Your task to perform on an android device: check storage Image 0: 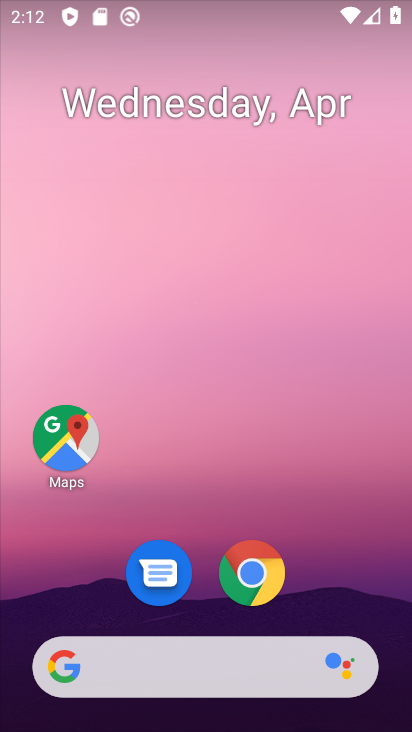
Step 0: drag from (358, 566) to (333, 175)
Your task to perform on an android device: check storage Image 1: 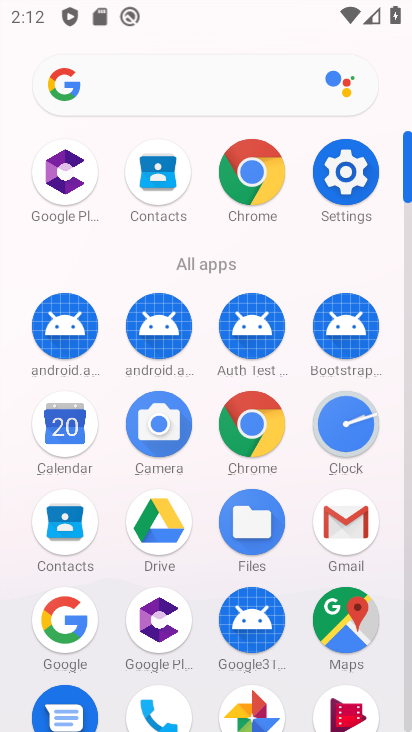
Step 1: click (339, 177)
Your task to perform on an android device: check storage Image 2: 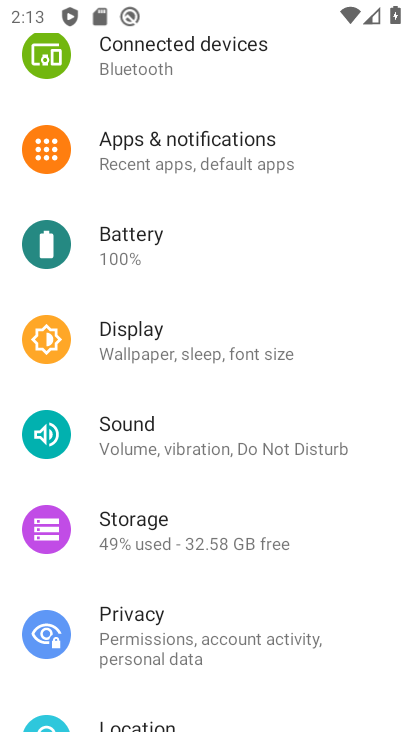
Step 2: drag from (356, 543) to (358, 347)
Your task to perform on an android device: check storage Image 3: 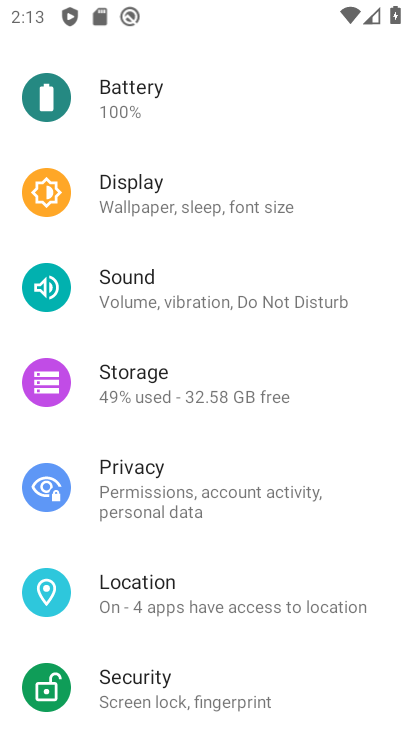
Step 3: drag from (363, 547) to (366, 322)
Your task to perform on an android device: check storage Image 4: 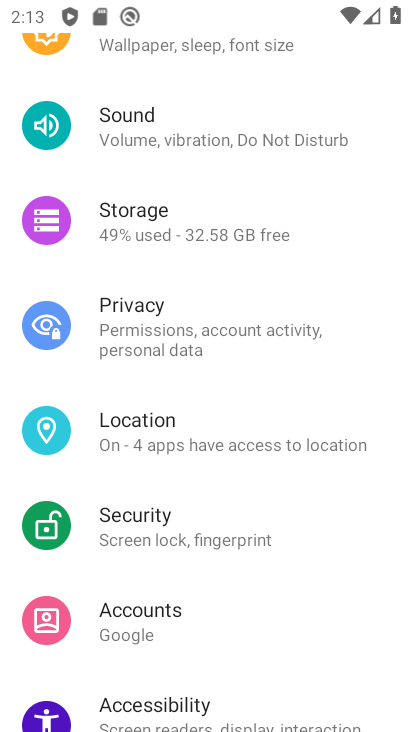
Step 4: drag from (362, 594) to (363, 370)
Your task to perform on an android device: check storage Image 5: 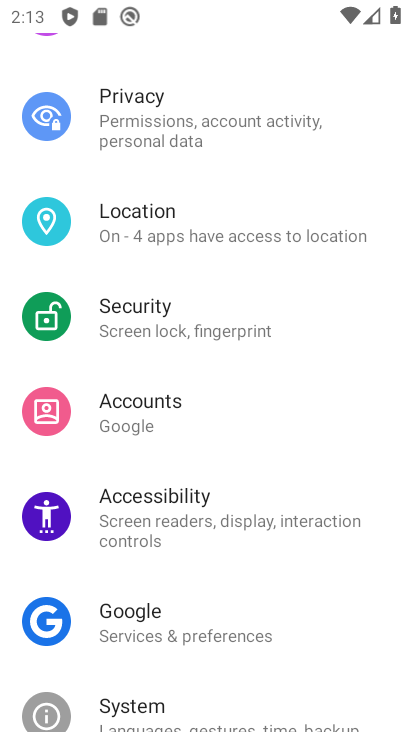
Step 5: drag from (350, 611) to (356, 376)
Your task to perform on an android device: check storage Image 6: 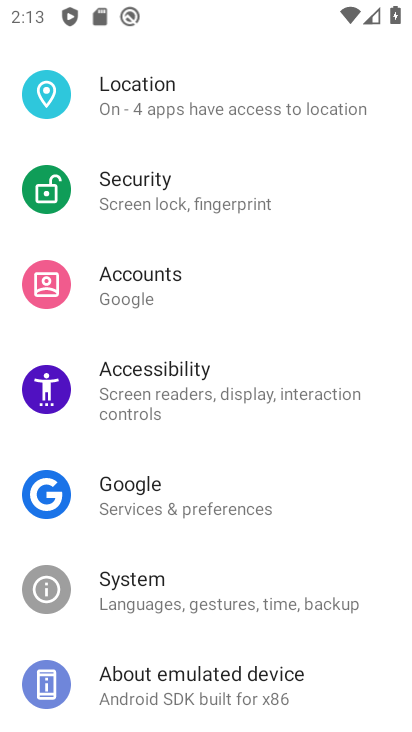
Step 6: drag from (384, 363) to (377, 534)
Your task to perform on an android device: check storage Image 7: 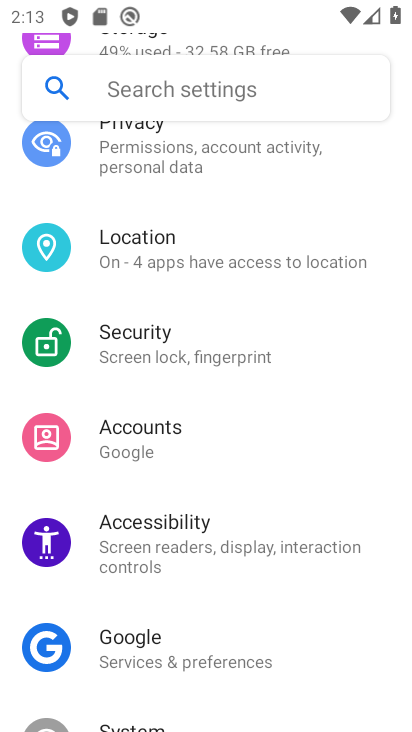
Step 7: drag from (378, 311) to (368, 486)
Your task to perform on an android device: check storage Image 8: 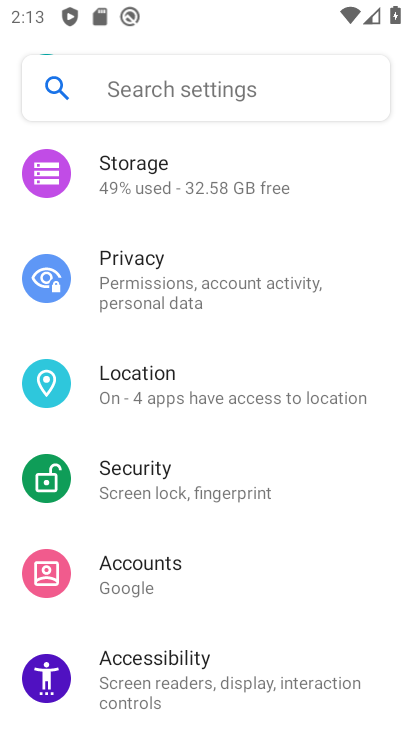
Step 8: drag from (377, 257) to (370, 489)
Your task to perform on an android device: check storage Image 9: 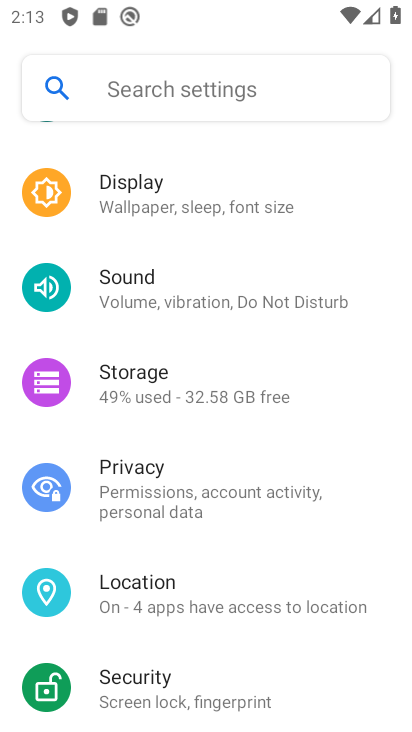
Step 9: drag from (383, 286) to (377, 441)
Your task to perform on an android device: check storage Image 10: 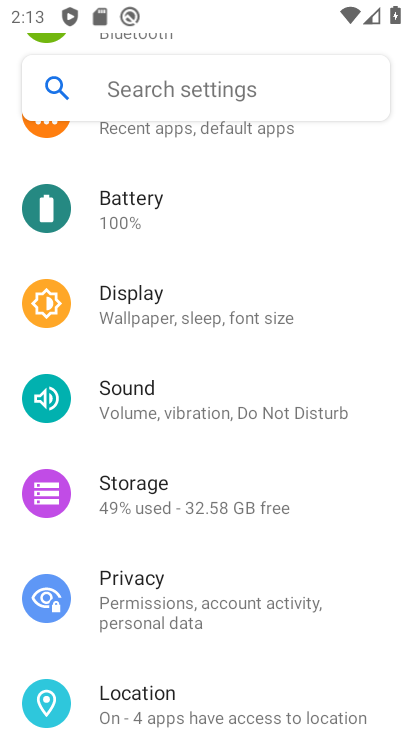
Step 10: click (224, 501)
Your task to perform on an android device: check storage Image 11: 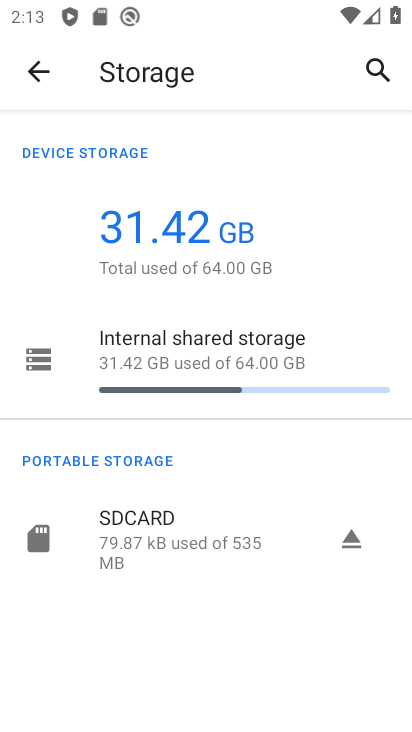
Step 11: task complete